Your task to perform on an android device: add a contact in the contacts app Image 0: 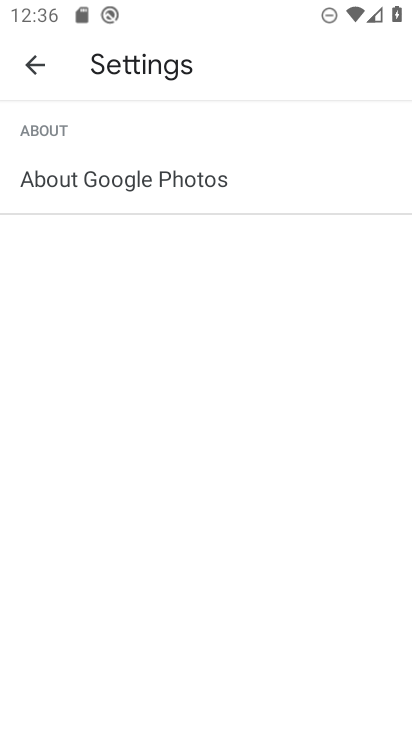
Step 0: click (272, 451)
Your task to perform on an android device: add a contact in the contacts app Image 1: 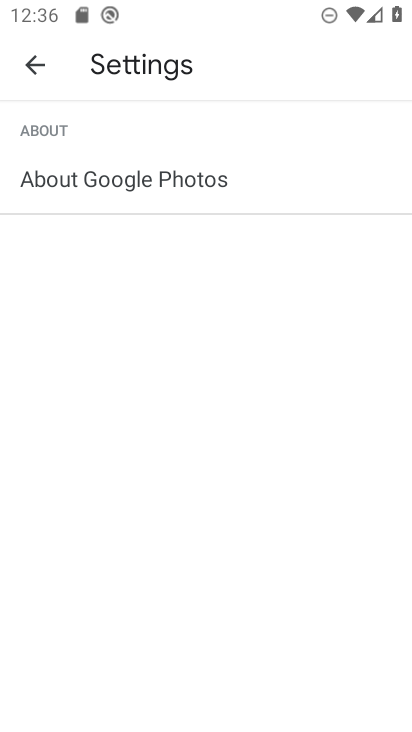
Step 1: press home button
Your task to perform on an android device: add a contact in the contacts app Image 2: 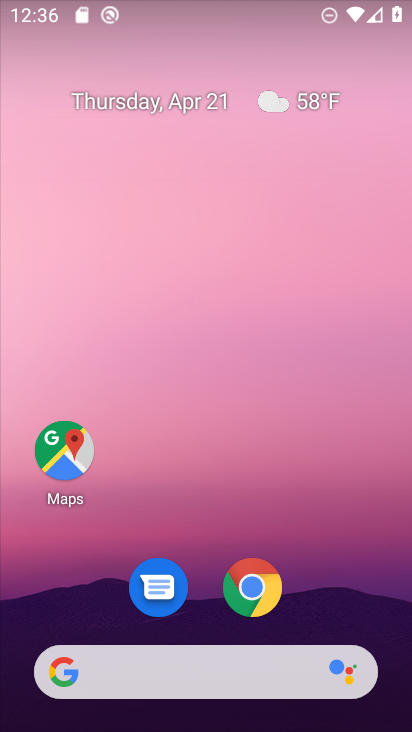
Step 2: drag from (220, 579) to (407, 15)
Your task to perform on an android device: add a contact in the contacts app Image 3: 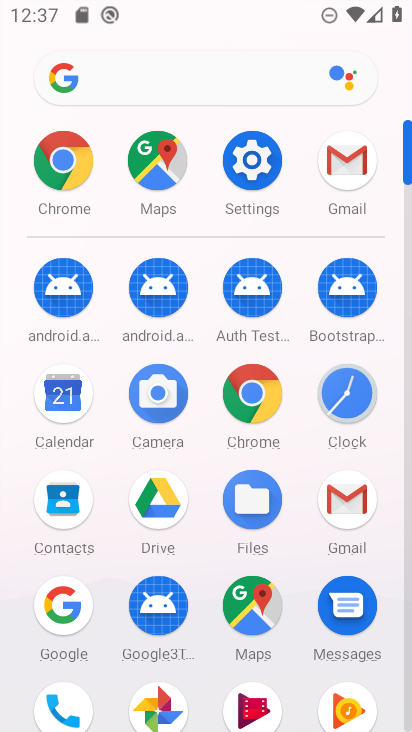
Step 3: click (69, 518)
Your task to perform on an android device: add a contact in the contacts app Image 4: 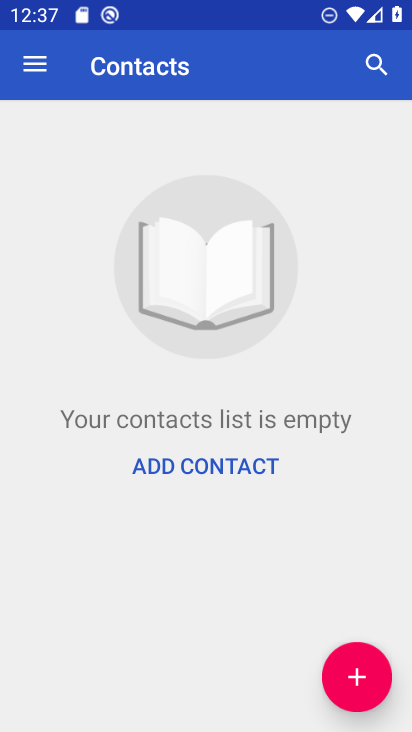
Step 4: click (42, 68)
Your task to perform on an android device: add a contact in the contacts app Image 5: 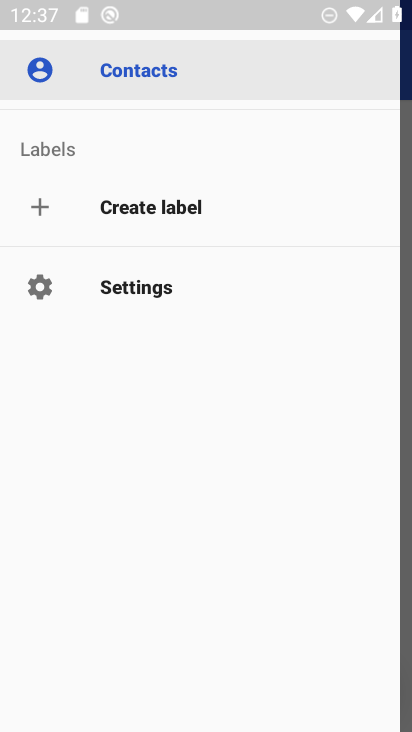
Step 5: click (365, 681)
Your task to perform on an android device: add a contact in the contacts app Image 6: 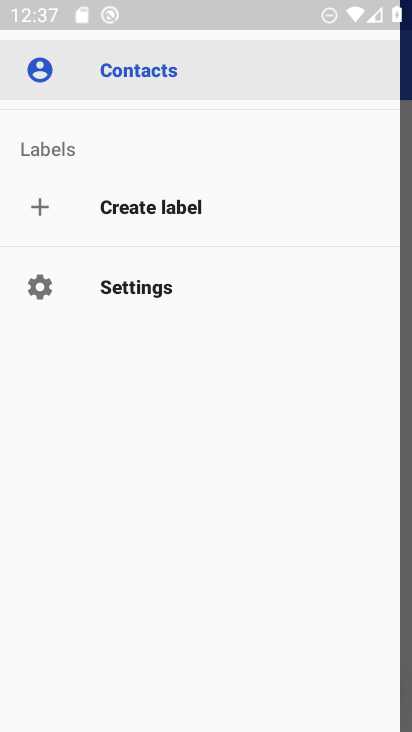
Step 6: click (409, 419)
Your task to perform on an android device: add a contact in the contacts app Image 7: 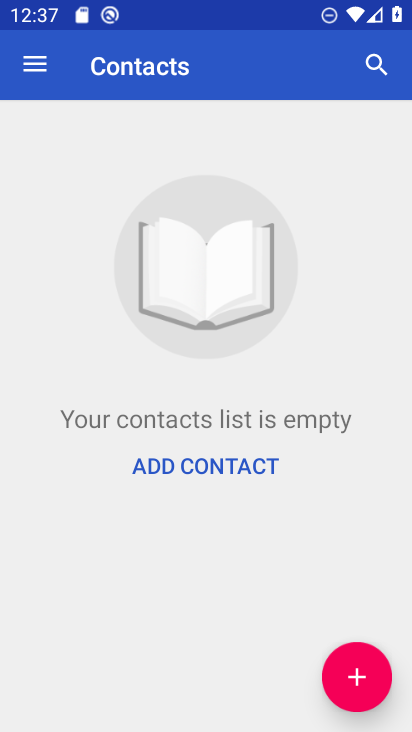
Step 7: click (348, 659)
Your task to perform on an android device: add a contact in the contacts app Image 8: 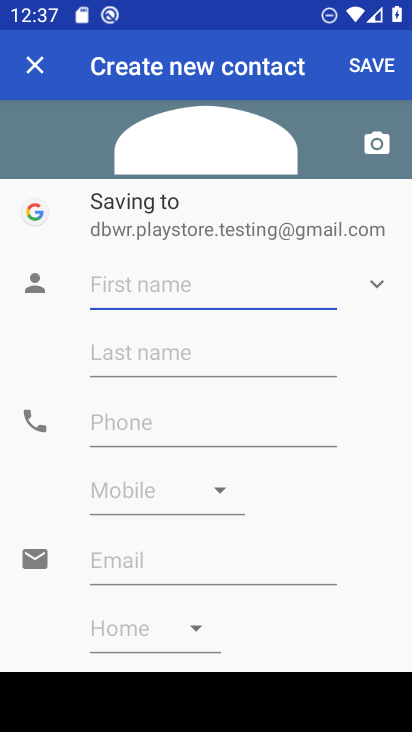
Step 8: type "flizza"
Your task to perform on an android device: add a contact in the contacts app Image 9: 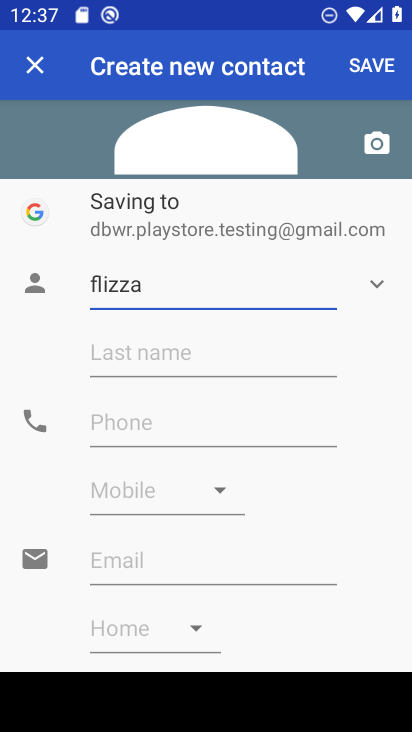
Step 9: click (359, 62)
Your task to perform on an android device: add a contact in the contacts app Image 10: 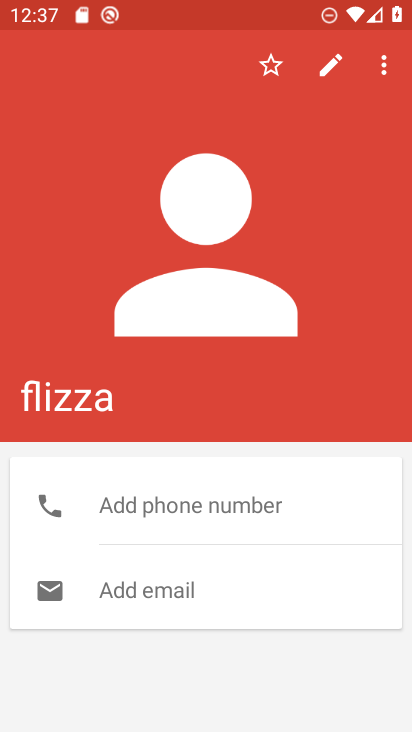
Step 10: task complete